Your task to perform on an android device: Open Amazon Image 0: 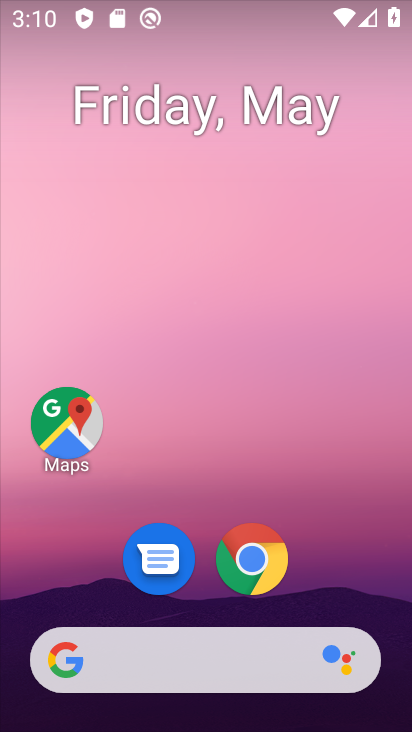
Step 0: click (251, 565)
Your task to perform on an android device: Open Amazon Image 1: 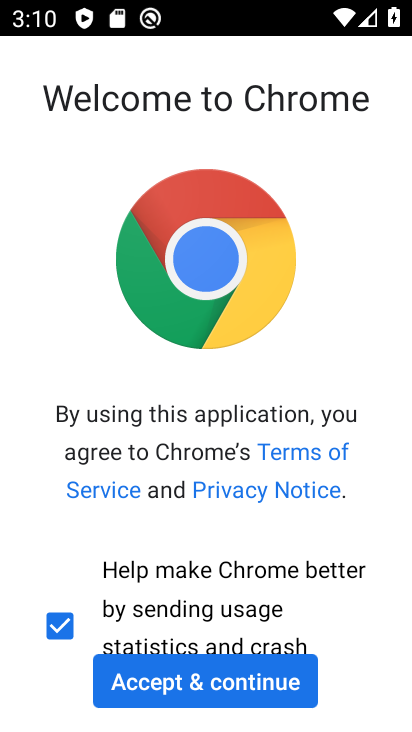
Step 1: click (221, 701)
Your task to perform on an android device: Open Amazon Image 2: 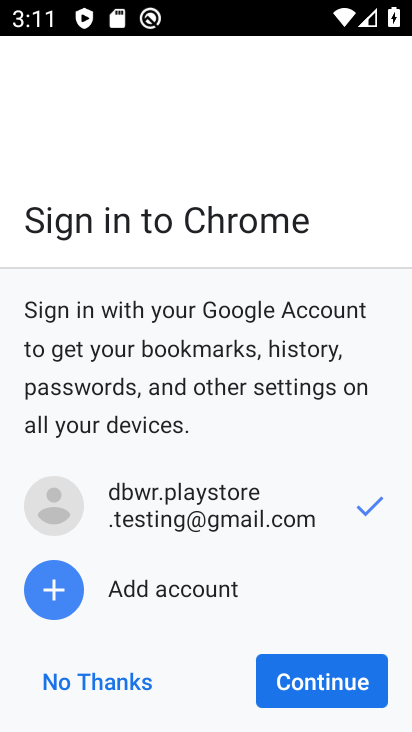
Step 2: click (283, 676)
Your task to perform on an android device: Open Amazon Image 3: 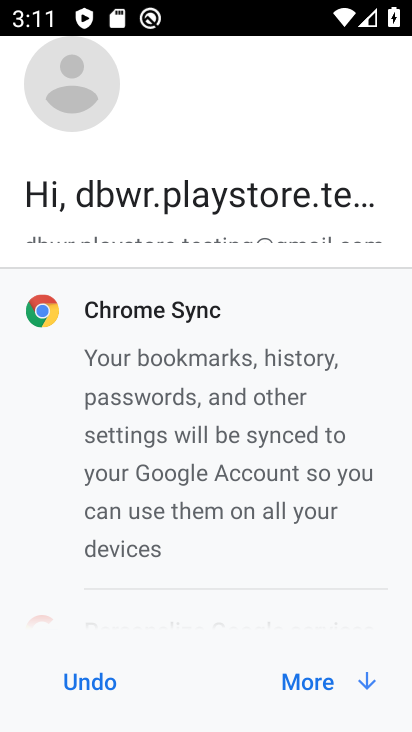
Step 3: click (283, 676)
Your task to perform on an android device: Open Amazon Image 4: 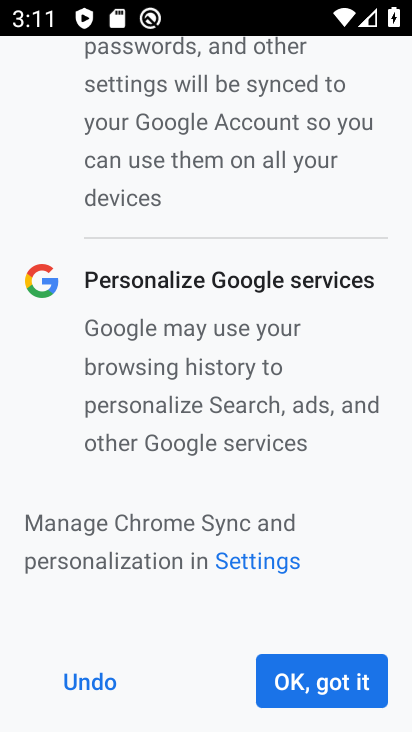
Step 4: click (292, 677)
Your task to perform on an android device: Open Amazon Image 5: 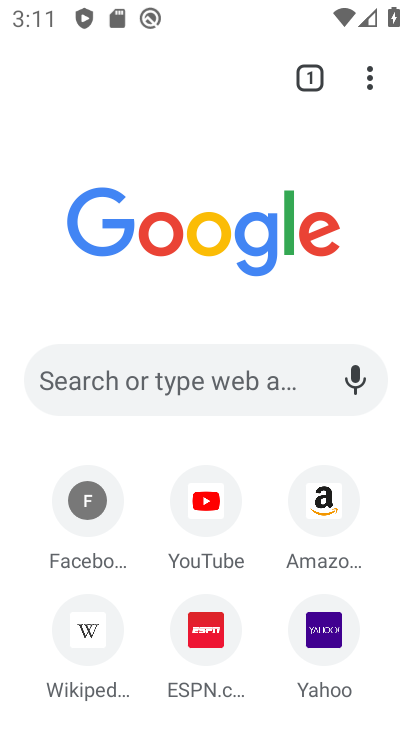
Step 5: click (212, 620)
Your task to perform on an android device: Open Amazon Image 6: 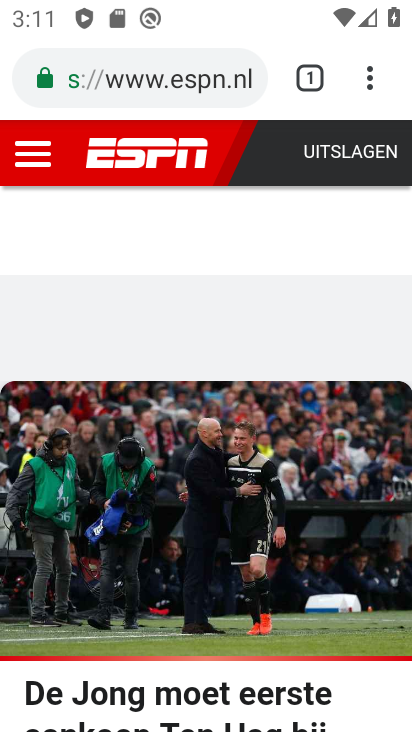
Step 6: click (372, 71)
Your task to perform on an android device: Open Amazon Image 7: 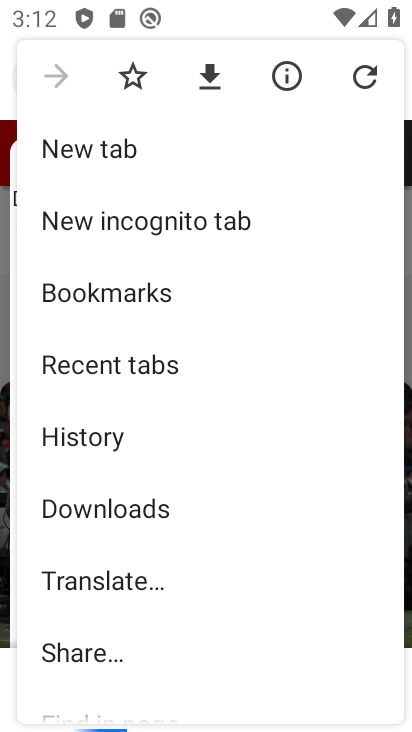
Step 7: click (146, 164)
Your task to perform on an android device: Open Amazon Image 8: 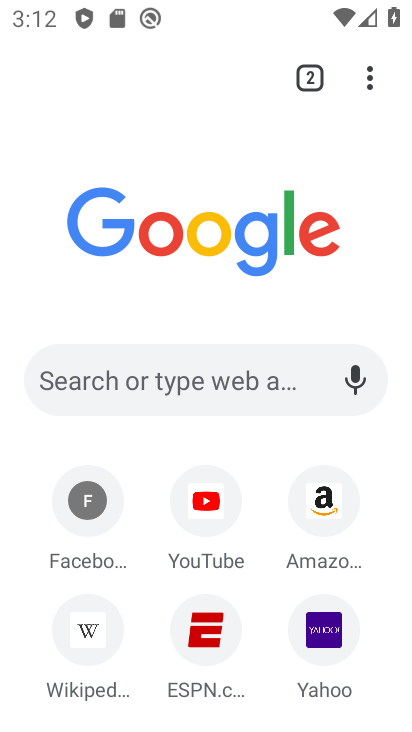
Step 8: click (373, 78)
Your task to perform on an android device: Open Amazon Image 9: 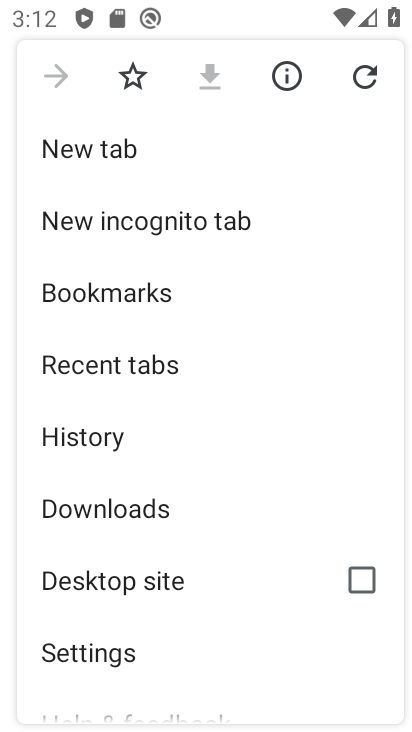
Step 9: click (132, 146)
Your task to perform on an android device: Open Amazon Image 10: 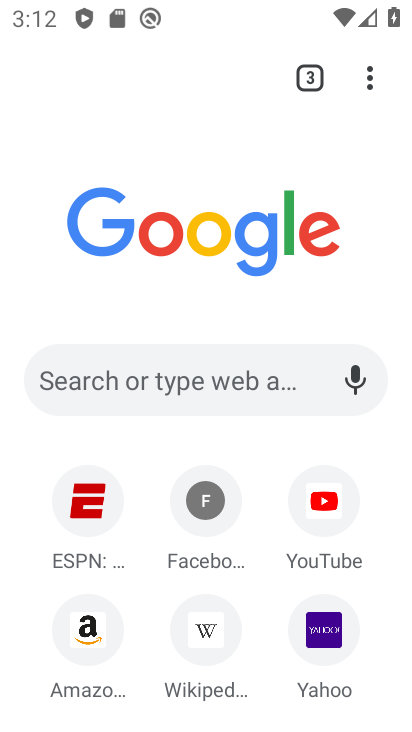
Step 10: click (354, 70)
Your task to perform on an android device: Open Amazon Image 11: 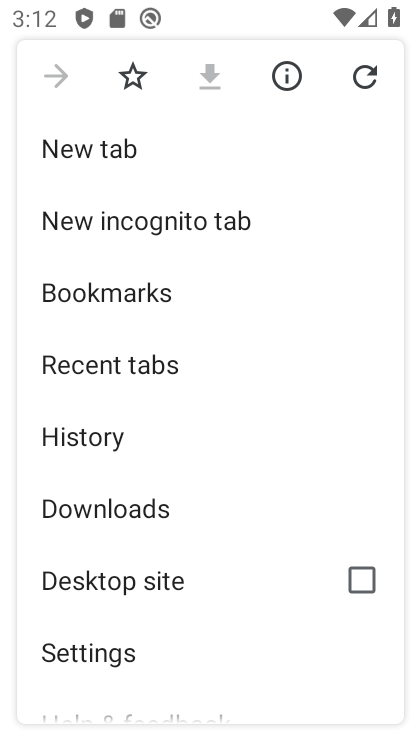
Step 11: click (79, 144)
Your task to perform on an android device: Open Amazon Image 12: 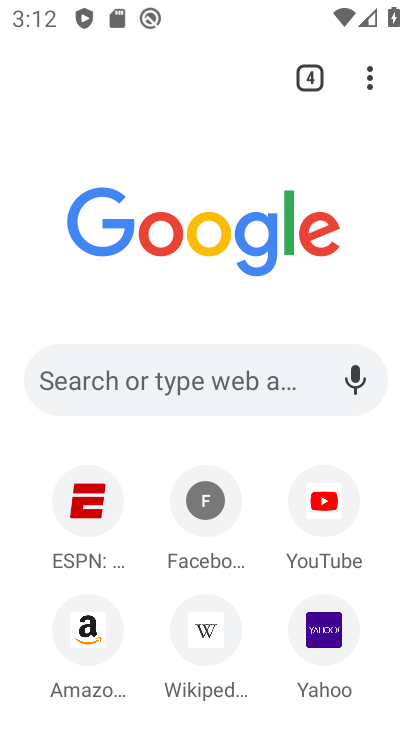
Step 12: click (93, 626)
Your task to perform on an android device: Open Amazon Image 13: 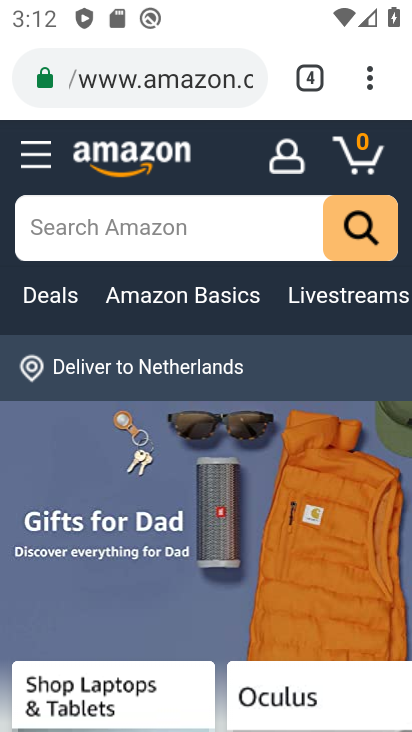
Step 13: task complete